Your task to perform on an android device: Go to Yahoo.com Image 0: 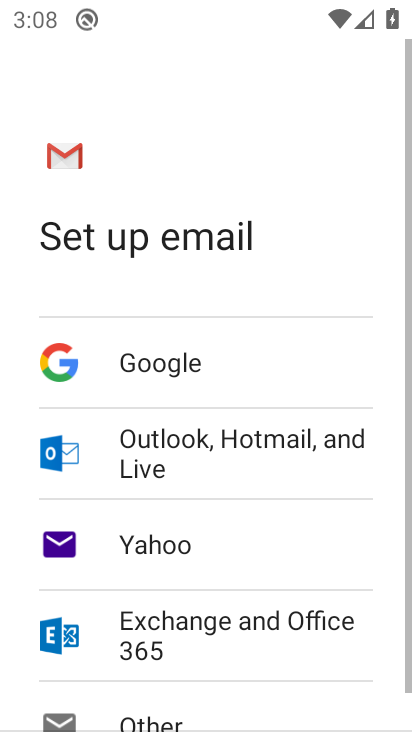
Step 0: press home button
Your task to perform on an android device: Go to Yahoo.com Image 1: 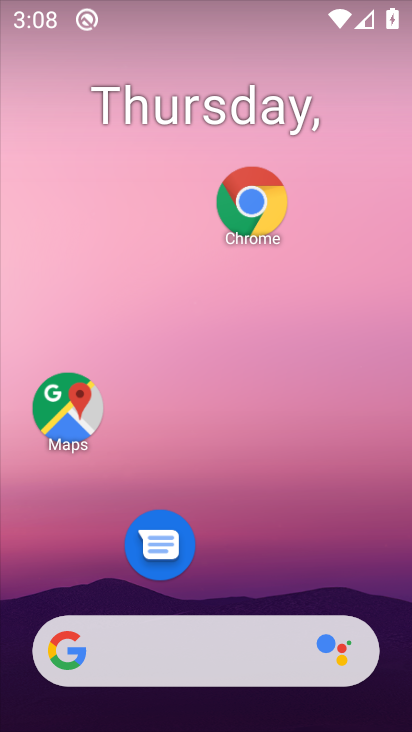
Step 1: click (246, 190)
Your task to perform on an android device: Go to Yahoo.com Image 2: 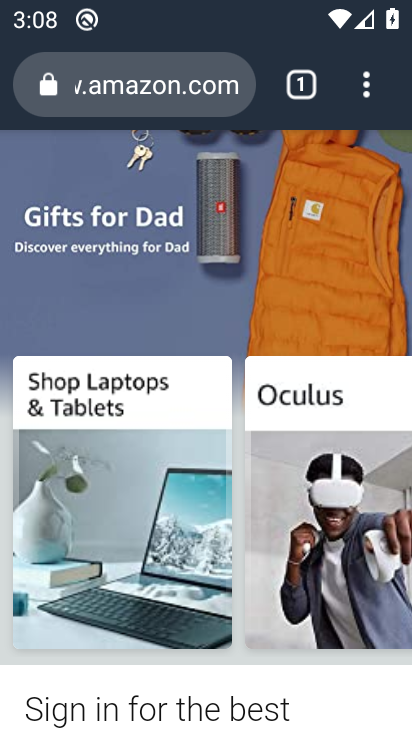
Step 2: click (307, 85)
Your task to perform on an android device: Go to Yahoo.com Image 3: 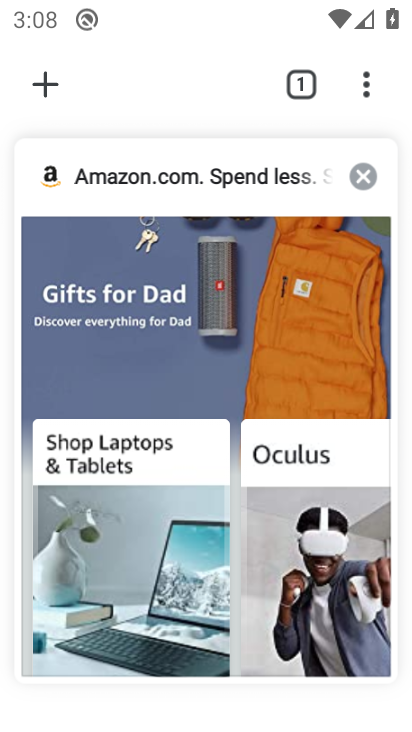
Step 3: click (353, 178)
Your task to perform on an android device: Go to Yahoo.com Image 4: 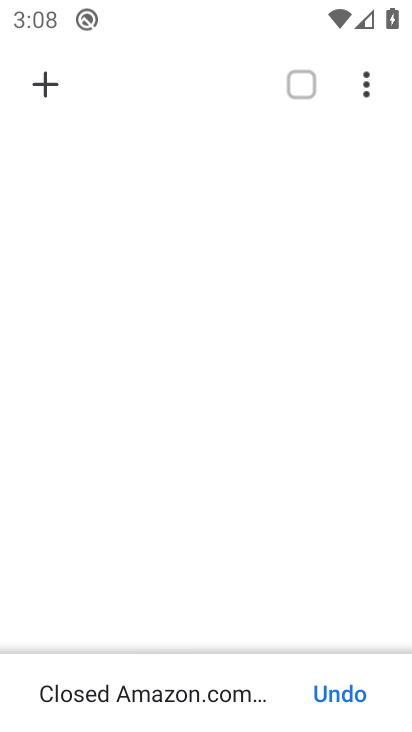
Step 4: click (46, 74)
Your task to perform on an android device: Go to Yahoo.com Image 5: 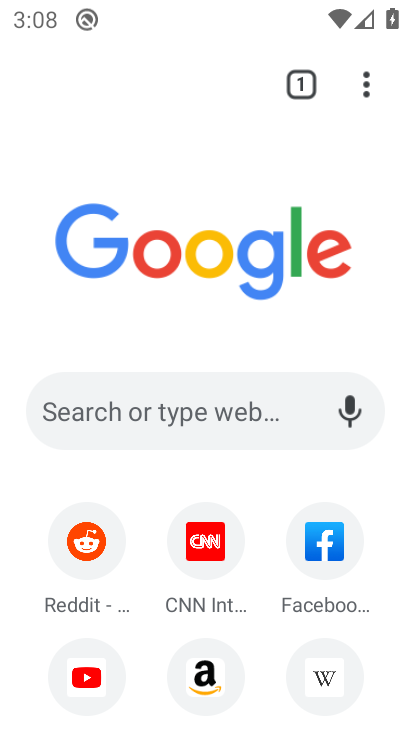
Step 5: drag from (171, 675) to (182, 374)
Your task to perform on an android device: Go to Yahoo.com Image 6: 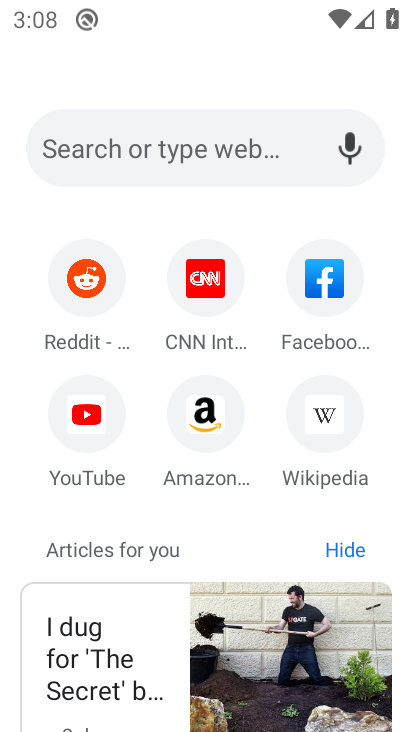
Step 6: click (135, 156)
Your task to perform on an android device: Go to Yahoo.com Image 7: 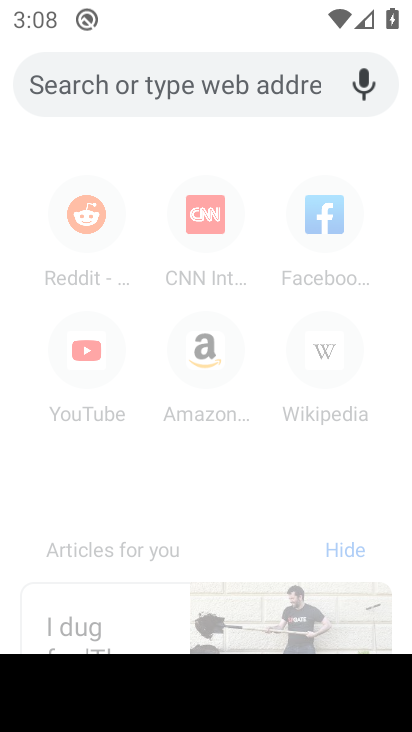
Step 7: type "yahoo.com"
Your task to perform on an android device: Go to Yahoo.com Image 8: 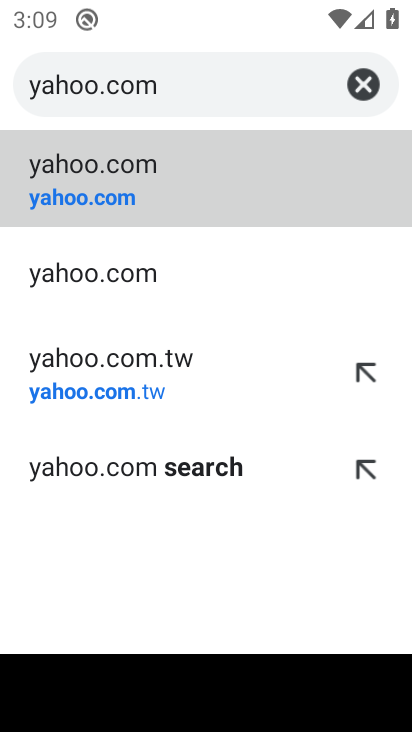
Step 8: click (84, 177)
Your task to perform on an android device: Go to Yahoo.com Image 9: 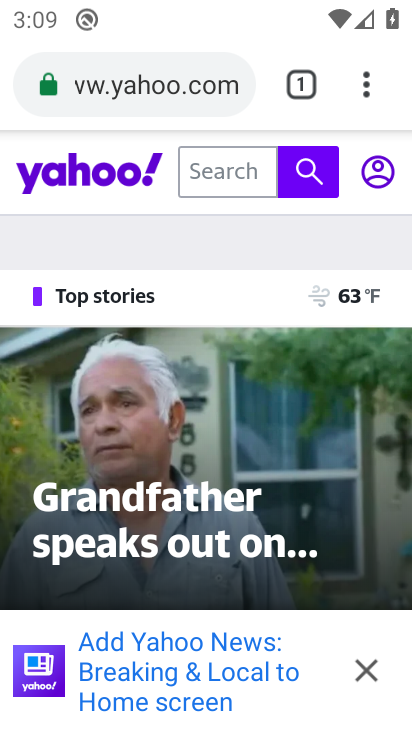
Step 9: task complete